Your task to perform on an android device: Play the last video I watched on Youtube Image 0: 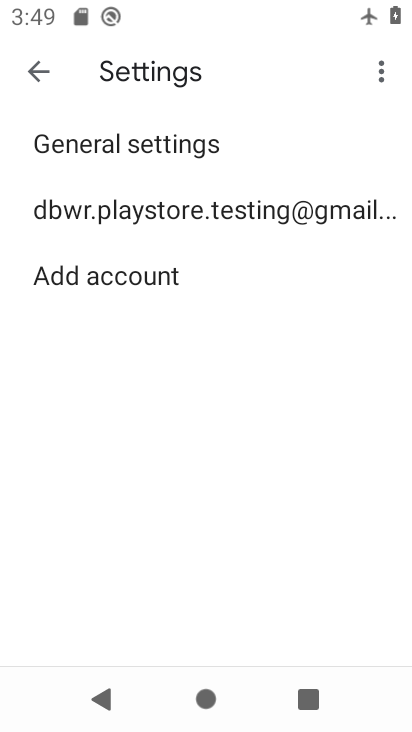
Step 0: press home button
Your task to perform on an android device: Play the last video I watched on Youtube Image 1: 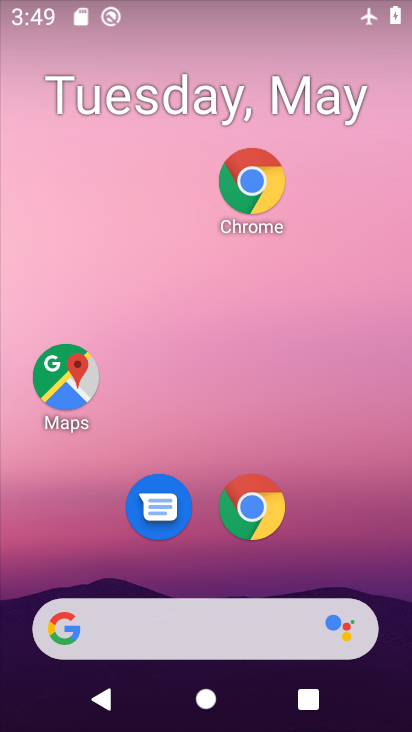
Step 1: drag from (358, 536) to (363, 124)
Your task to perform on an android device: Play the last video I watched on Youtube Image 2: 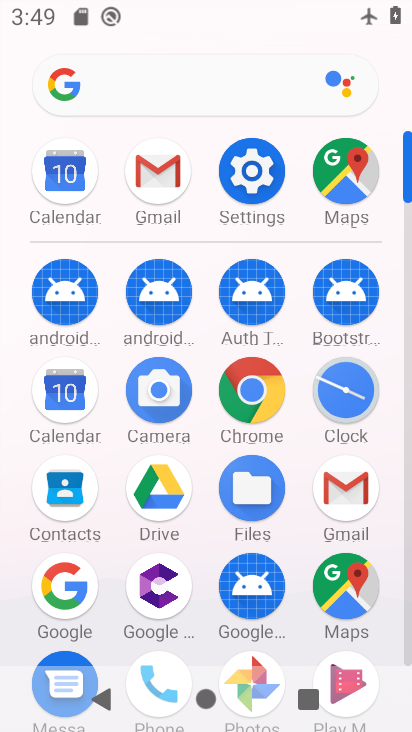
Step 2: drag from (376, 455) to (385, 120)
Your task to perform on an android device: Play the last video I watched on Youtube Image 3: 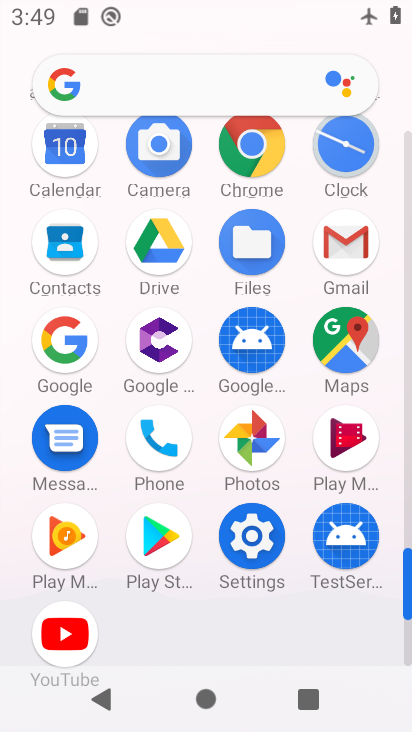
Step 3: click (46, 638)
Your task to perform on an android device: Play the last video I watched on Youtube Image 4: 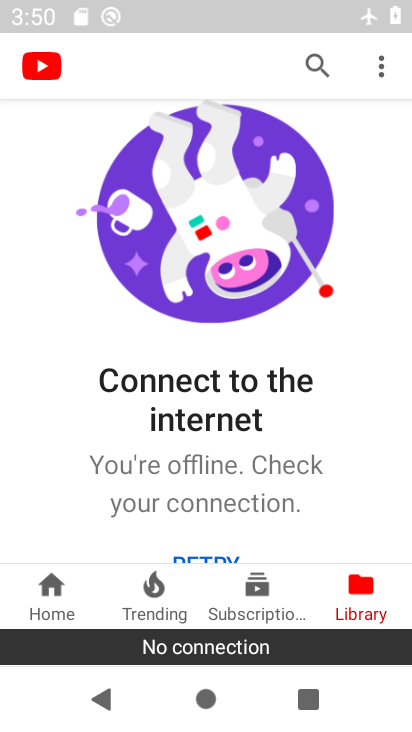
Step 4: task complete